Your task to perform on an android device: delete location history Image 0: 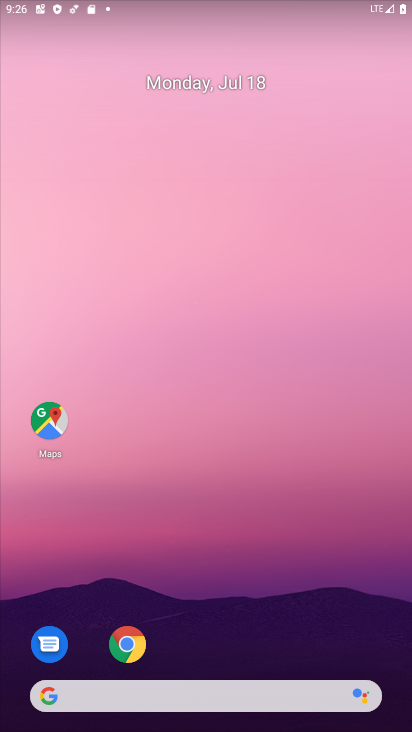
Step 0: drag from (209, 652) to (207, 61)
Your task to perform on an android device: delete location history Image 1: 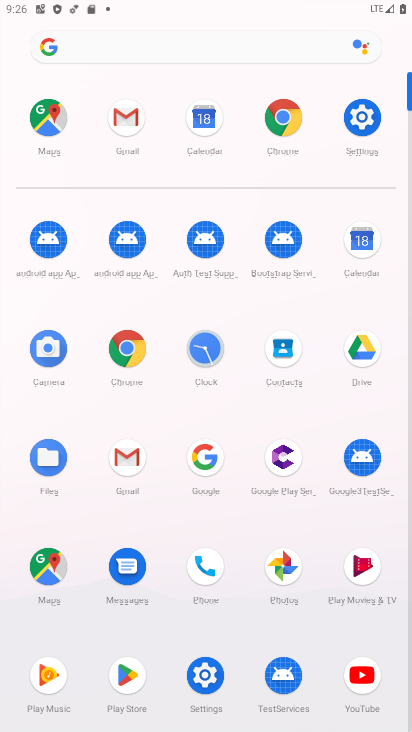
Step 1: click (59, 126)
Your task to perform on an android device: delete location history Image 2: 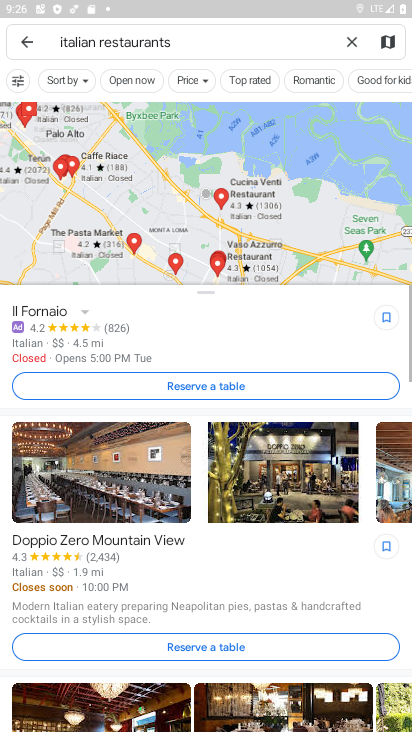
Step 2: click (28, 30)
Your task to perform on an android device: delete location history Image 3: 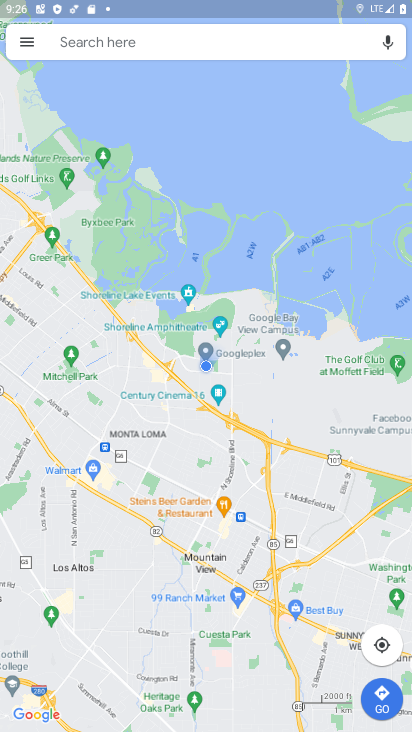
Step 3: click (26, 43)
Your task to perform on an android device: delete location history Image 4: 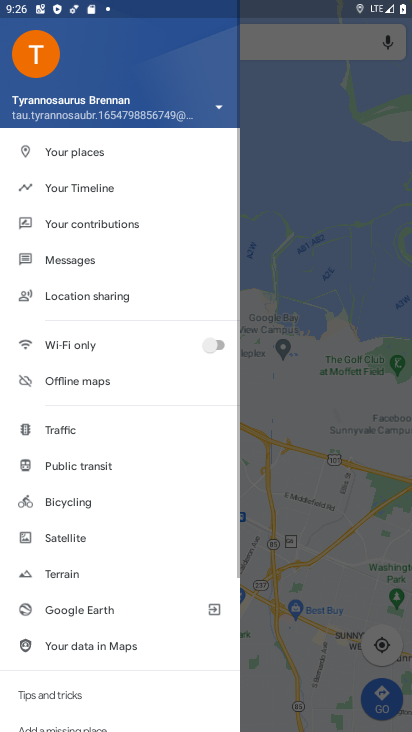
Step 4: drag from (148, 662) to (129, 168)
Your task to perform on an android device: delete location history Image 5: 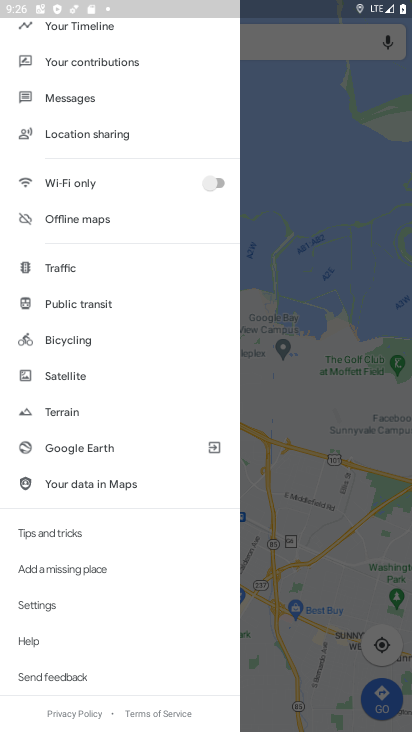
Step 5: drag from (57, 57) to (56, 235)
Your task to perform on an android device: delete location history Image 6: 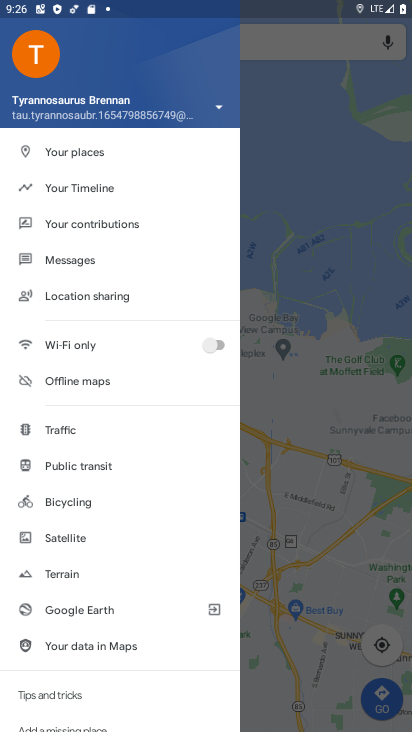
Step 6: click (67, 183)
Your task to perform on an android device: delete location history Image 7: 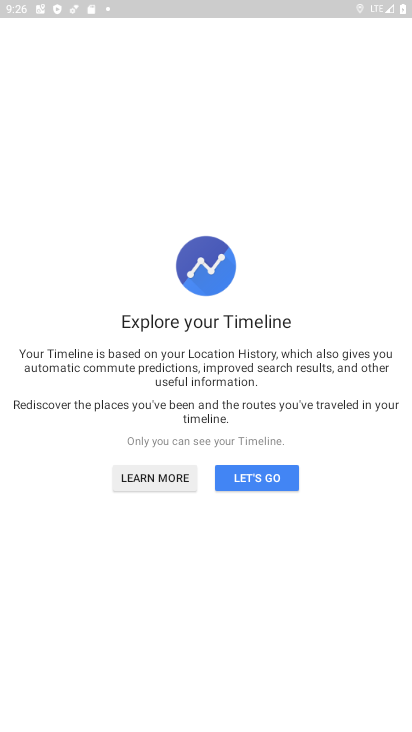
Step 7: click (286, 485)
Your task to perform on an android device: delete location history Image 8: 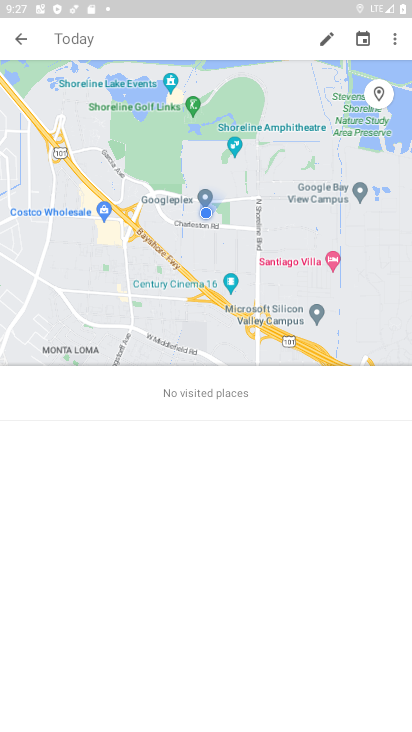
Step 8: click (392, 40)
Your task to perform on an android device: delete location history Image 9: 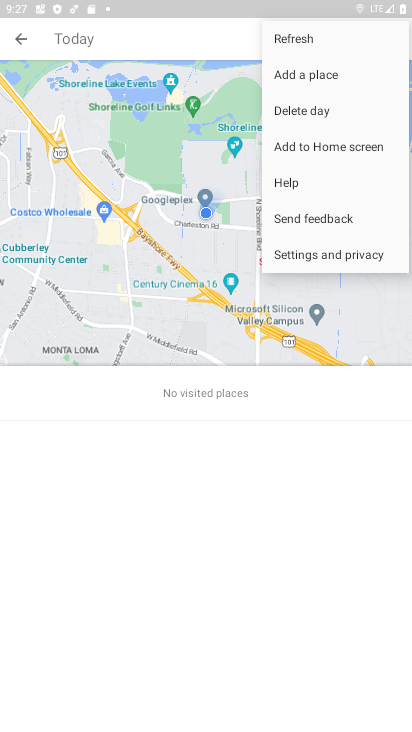
Step 9: click (305, 252)
Your task to perform on an android device: delete location history Image 10: 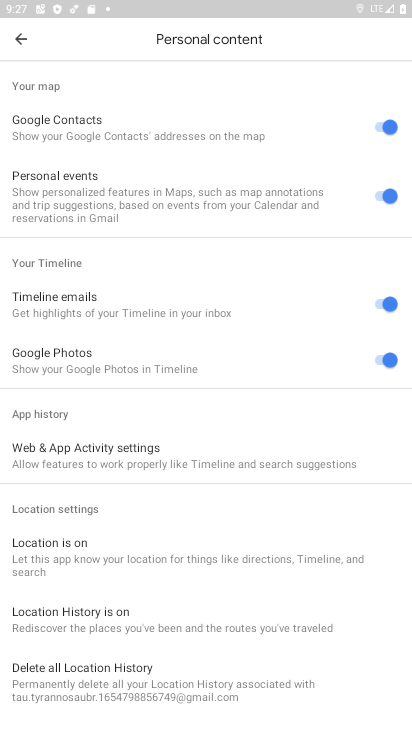
Step 10: click (104, 660)
Your task to perform on an android device: delete location history Image 11: 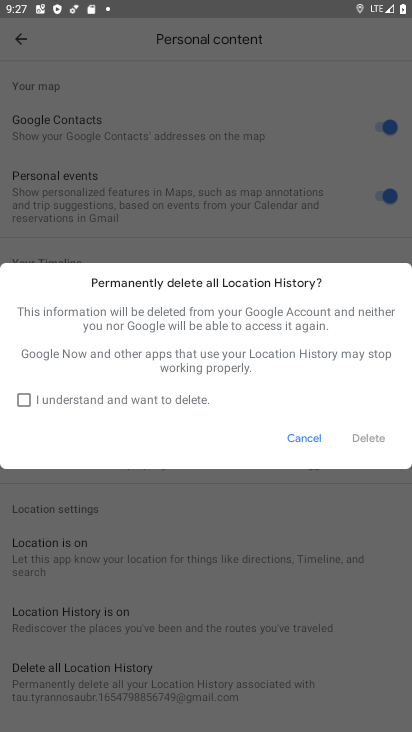
Step 11: click (21, 396)
Your task to perform on an android device: delete location history Image 12: 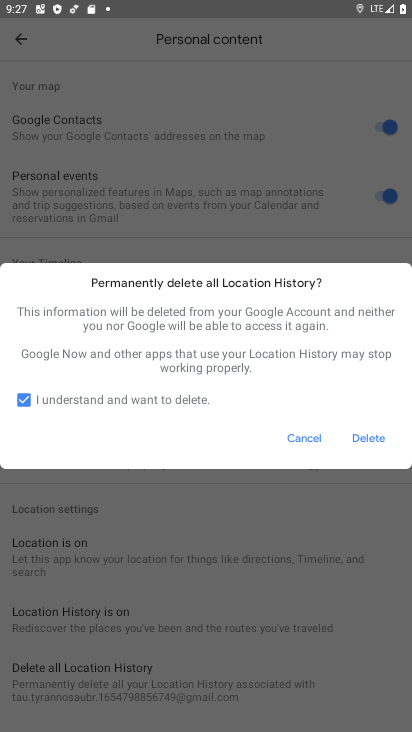
Step 12: click (380, 441)
Your task to perform on an android device: delete location history Image 13: 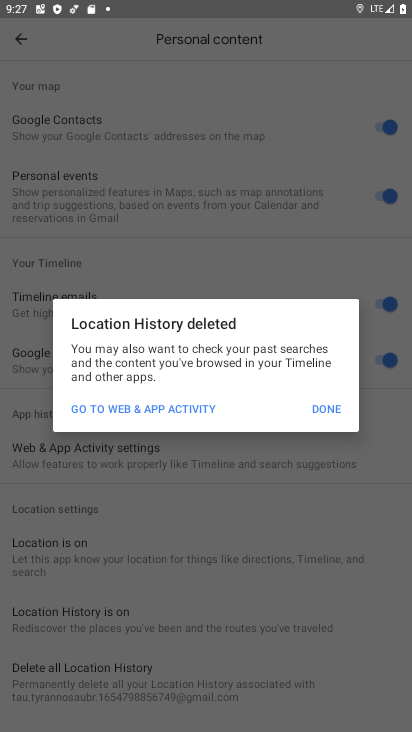
Step 13: click (326, 414)
Your task to perform on an android device: delete location history Image 14: 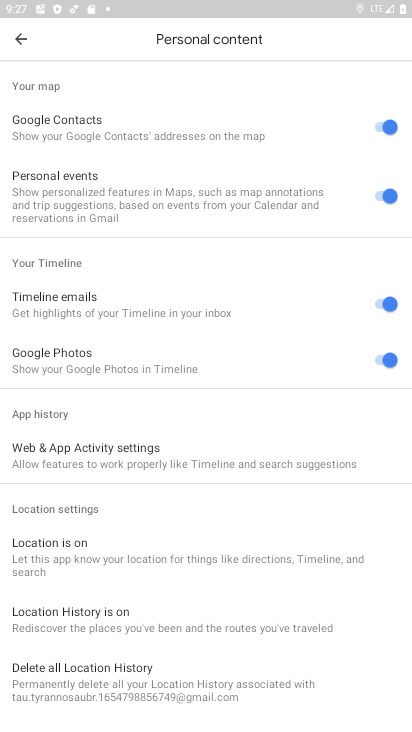
Step 14: task complete